Your task to perform on an android device: Turn on the flashlight Image 0: 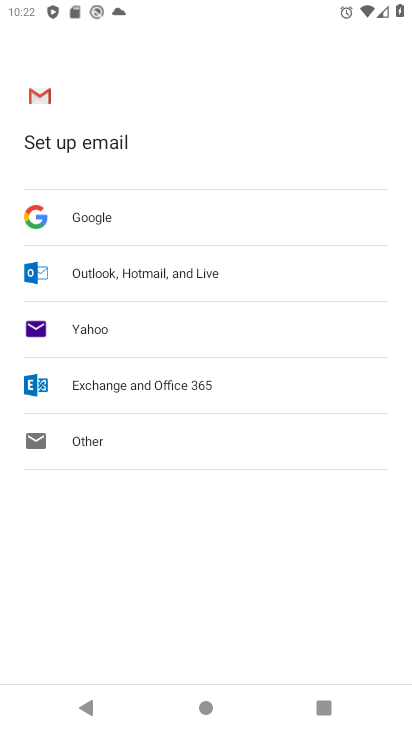
Step 0: press back button
Your task to perform on an android device: Turn on the flashlight Image 1: 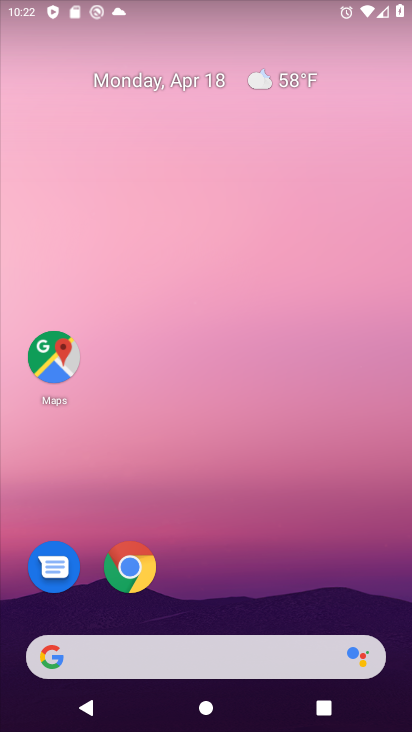
Step 1: drag from (207, 707) to (197, 109)
Your task to perform on an android device: Turn on the flashlight Image 2: 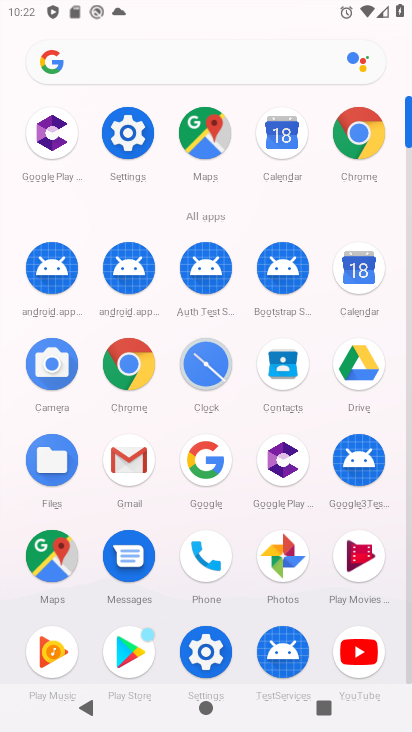
Step 2: click (123, 124)
Your task to perform on an android device: Turn on the flashlight Image 3: 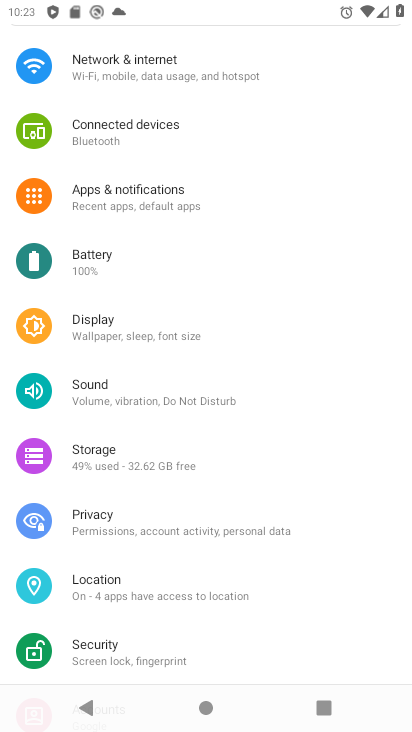
Step 3: task complete